Your task to perform on an android device: set the stopwatch Image 0: 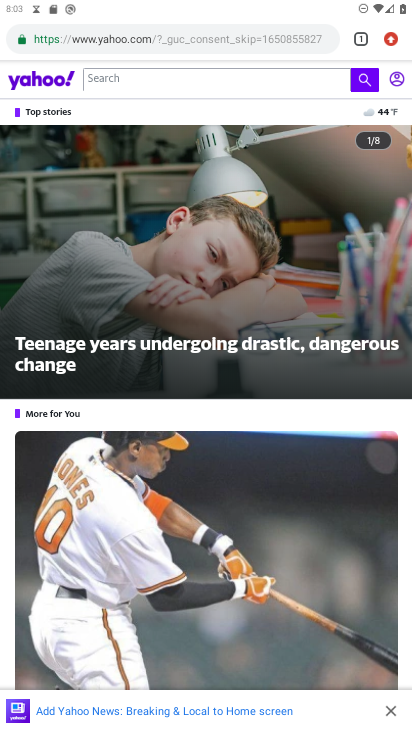
Step 0: press home button
Your task to perform on an android device: set the stopwatch Image 1: 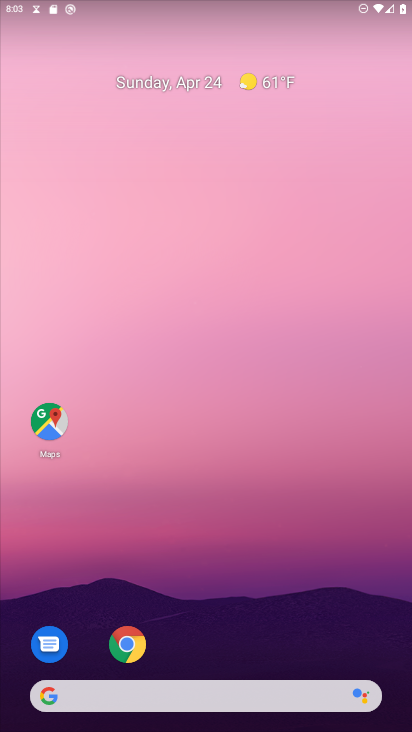
Step 1: drag from (161, 695) to (209, 182)
Your task to perform on an android device: set the stopwatch Image 2: 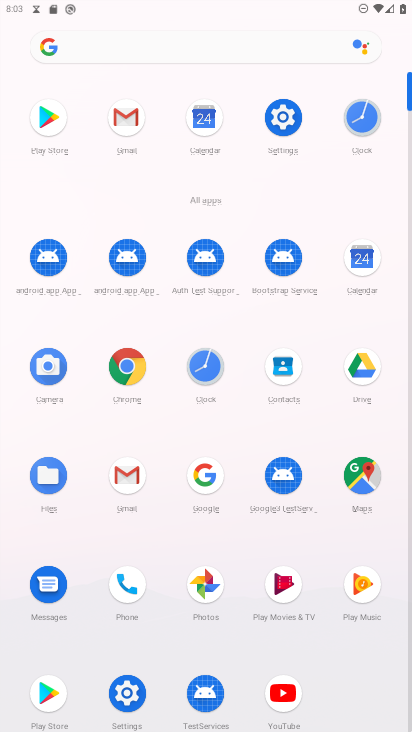
Step 2: click (192, 370)
Your task to perform on an android device: set the stopwatch Image 3: 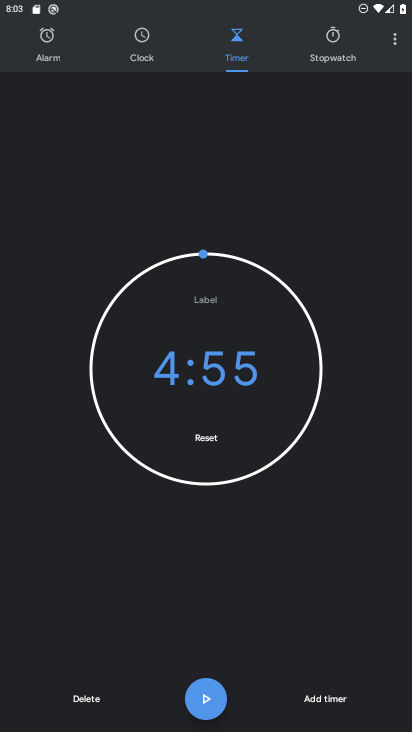
Step 3: click (324, 38)
Your task to perform on an android device: set the stopwatch Image 4: 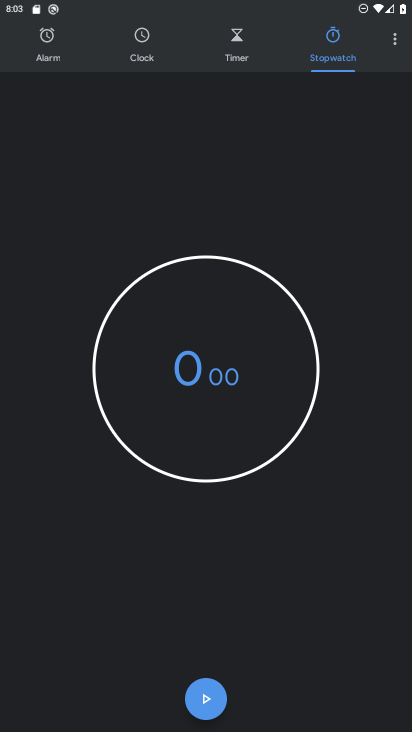
Step 4: click (205, 672)
Your task to perform on an android device: set the stopwatch Image 5: 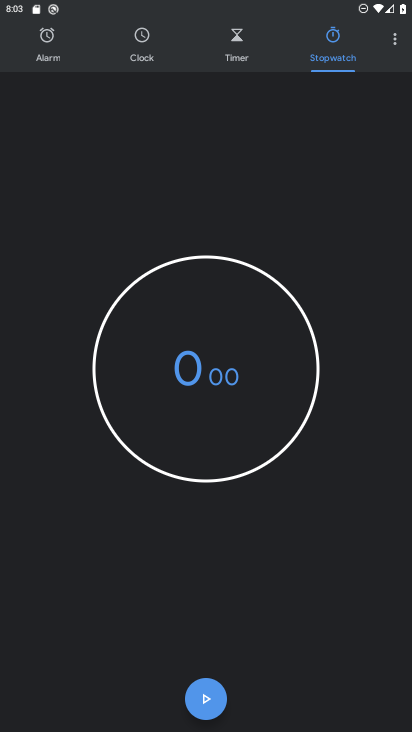
Step 5: click (207, 688)
Your task to perform on an android device: set the stopwatch Image 6: 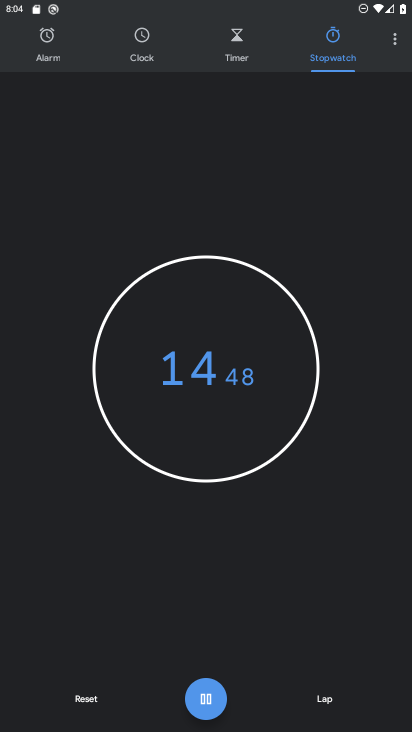
Step 6: task complete